Your task to perform on an android device: Open Google Chrome and click the shortcut for Amazon.com Image 0: 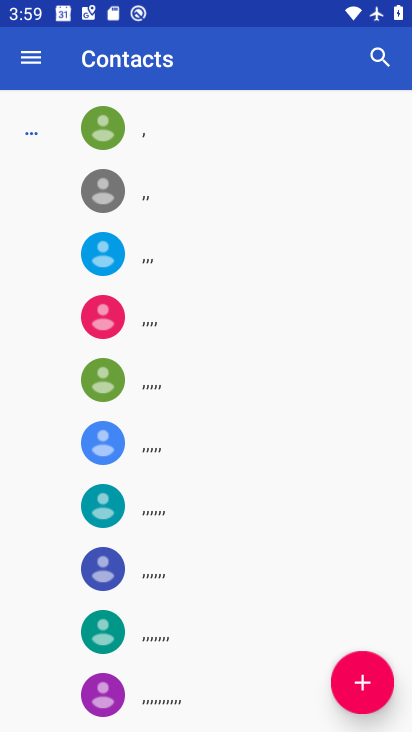
Step 0: press home button
Your task to perform on an android device: Open Google Chrome and click the shortcut for Amazon.com Image 1: 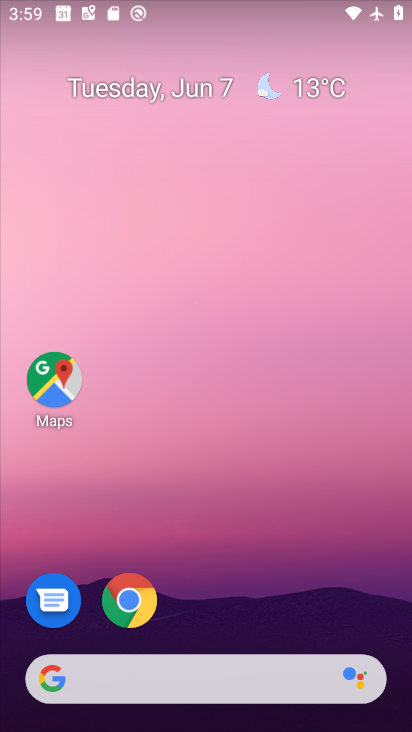
Step 1: click (134, 598)
Your task to perform on an android device: Open Google Chrome and click the shortcut for Amazon.com Image 2: 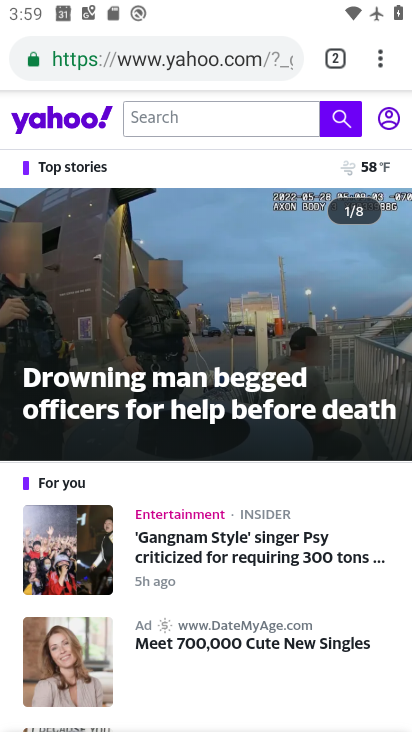
Step 2: drag from (379, 55) to (216, 121)
Your task to perform on an android device: Open Google Chrome and click the shortcut for Amazon.com Image 3: 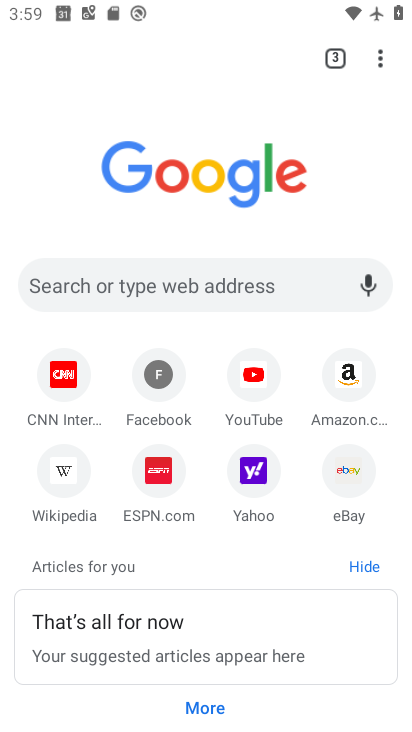
Step 3: click (355, 386)
Your task to perform on an android device: Open Google Chrome and click the shortcut for Amazon.com Image 4: 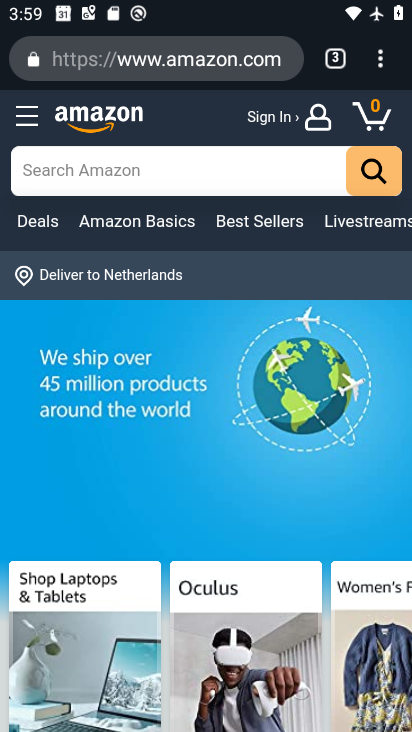
Step 4: task complete